Your task to perform on an android device: toggle airplane mode Image 0: 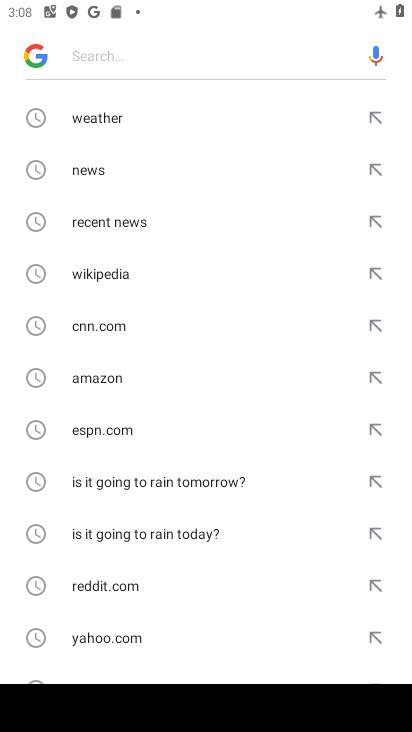
Step 0: press home button
Your task to perform on an android device: toggle airplane mode Image 1: 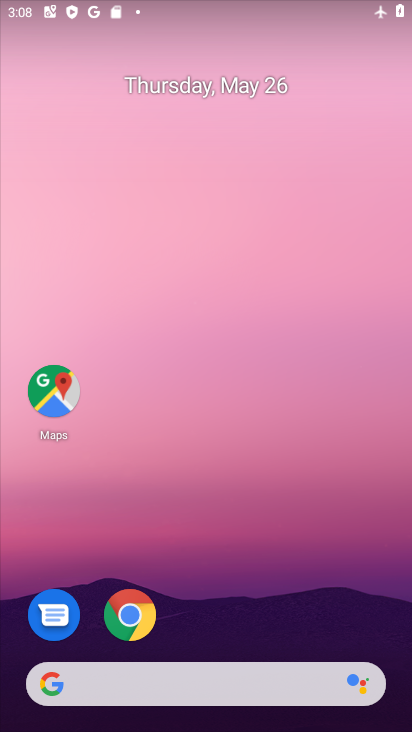
Step 1: drag from (200, 640) to (271, 59)
Your task to perform on an android device: toggle airplane mode Image 2: 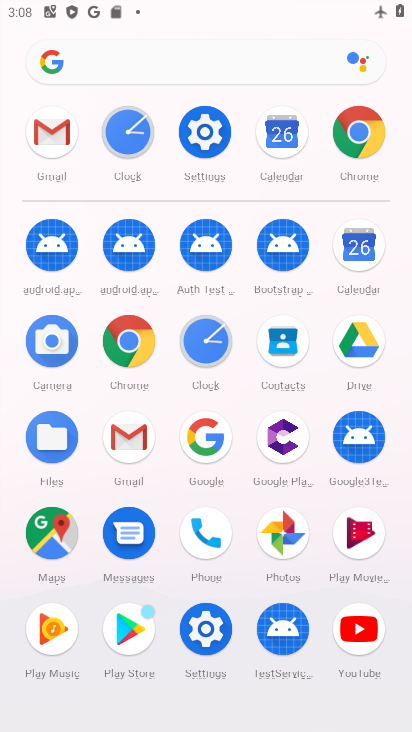
Step 2: click (206, 127)
Your task to perform on an android device: toggle airplane mode Image 3: 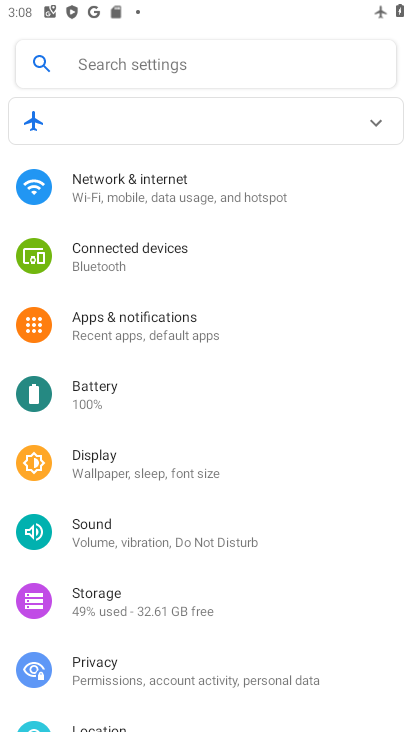
Step 3: click (366, 121)
Your task to perform on an android device: toggle airplane mode Image 4: 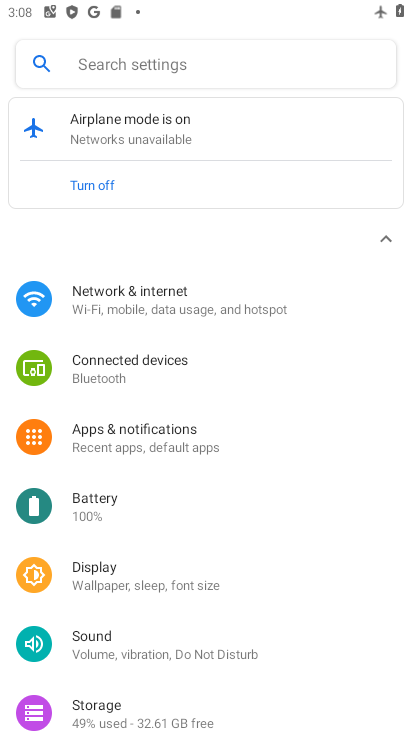
Step 4: click (108, 191)
Your task to perform on an android device: toggle airplane mode Image 5: 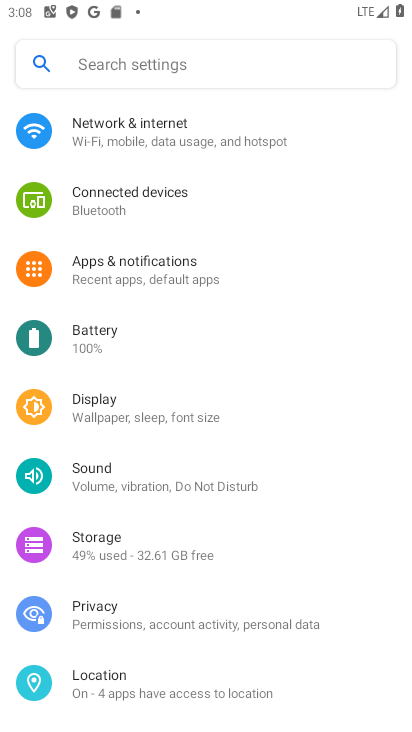
Step 5: task complete